Your task to perform on an android device: Open network settings Image 0: 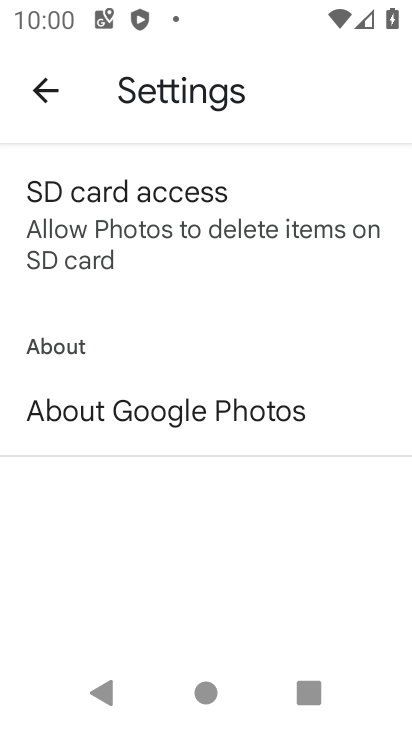
Step 0: press home button
Your task to perform on an android device: Open network settings Image 1: 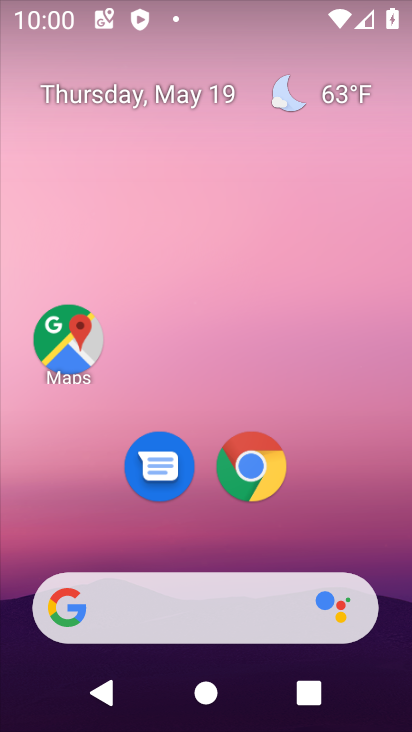
Step 1: drag from (373, 638) to (299, 19)
Your task to perform on an android device: Open network settings Image 2: 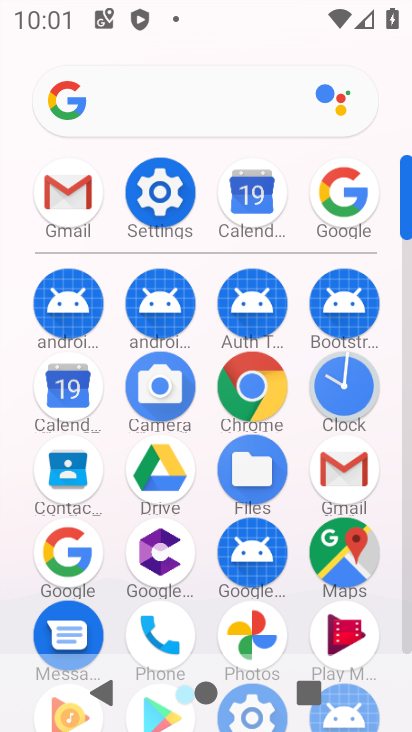
Step 2: click (155, 200)
Your task to perform on an android device: Open network settings Image 3: 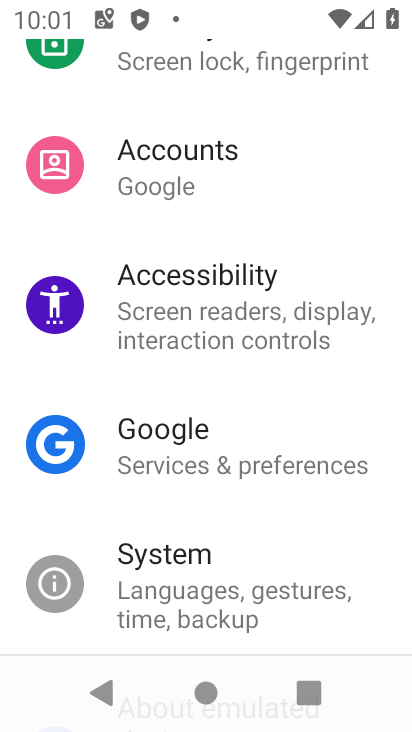
Step 3: drag from (203, 178) to (281, 681)
Your task to perform on an android device: Open network settings Image 4: 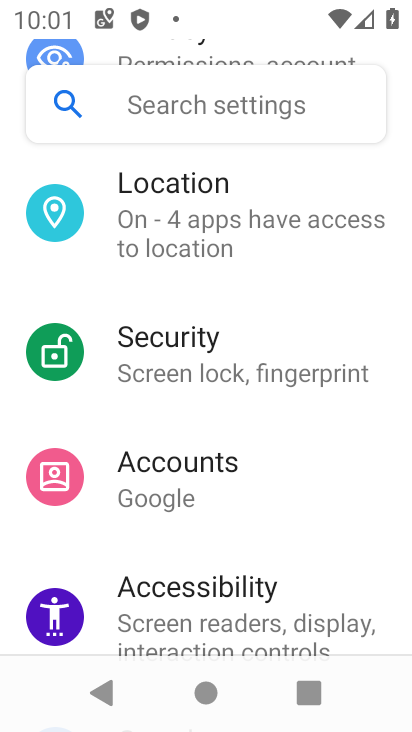
Step 4: drag from (209, 238) to (191, 650)
Your task to perform on an android device: Open network settings Image 5: 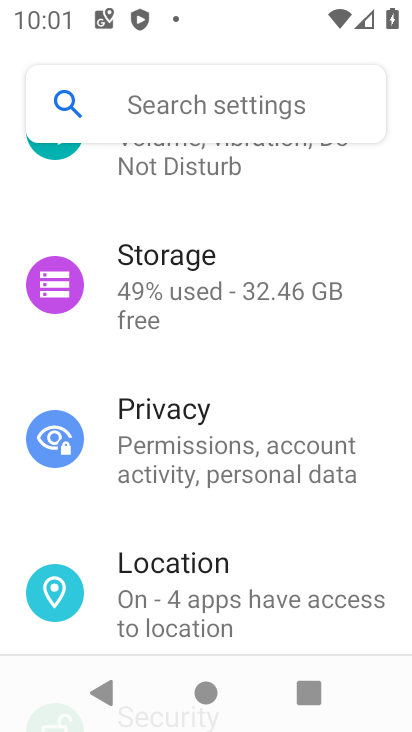
Step 5: drag from (243, 179) to (287, 619)
Your task to perform on an android device: Open network settings Image 6: 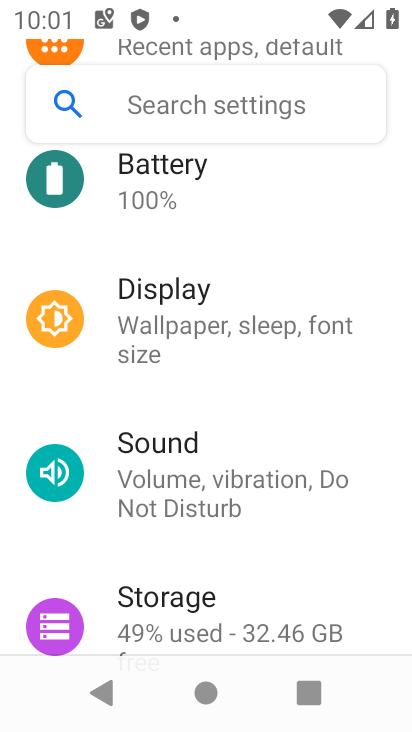
Step 6: drag from (244, 201) to (245, 590)
Your task to perform on an android device: Open network settings Image 7: 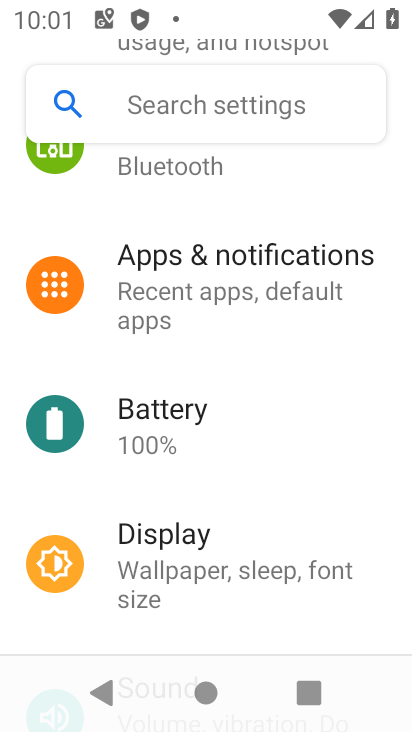
Step 7: drag from (223, 247) to (213, 534)
Your task to perform on an android device: Open network settings Image 8: 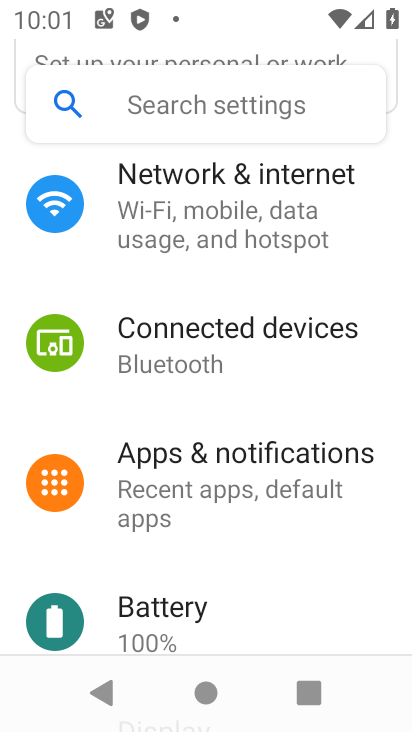
Step 8: click (209, 227)
Your task to perform on an android device: Open network settings Image 9: 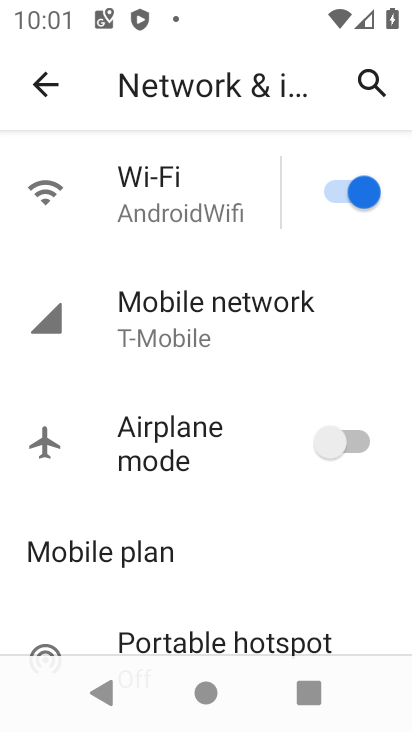
Step 9: click (185, 197)
Your task to perform on an android device: Open network settings Image 10: 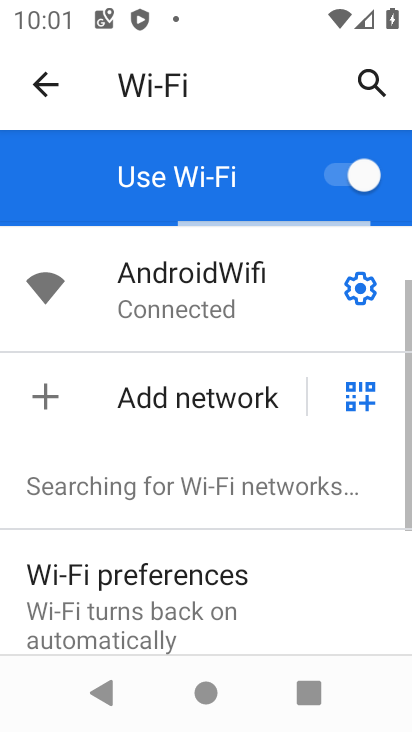
Step 10: task complete